Your task to perform on an android device: What's the weather going to be this weekend? Image 0: 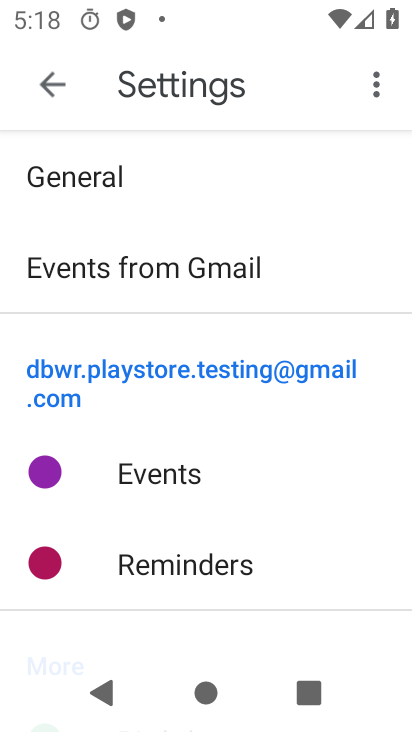
Step 0: press home button
Your task to perform on an android device: What's the weather going to be this weekend? Image 1: 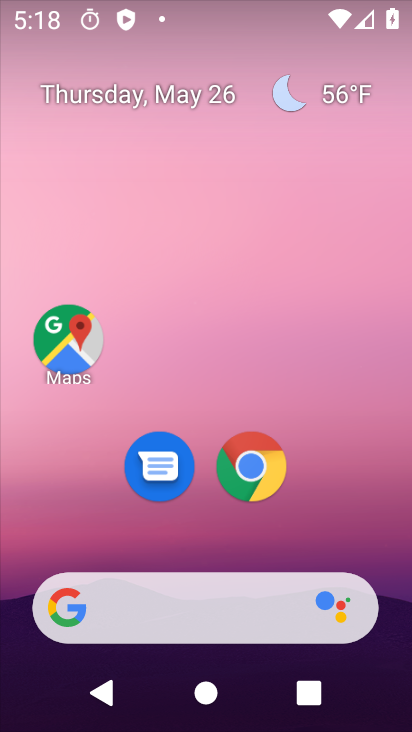
Step 1: click (257, 460)
Your task to perform on an android device: What's the weather going to be this weekend? Image 2: 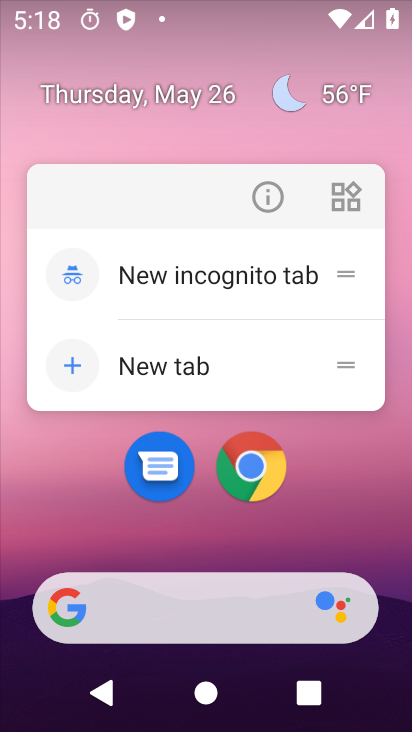
Step 2: click (337, 488)
Your task to perform on an android device: What's the weather going to be this weekend? Image 3: 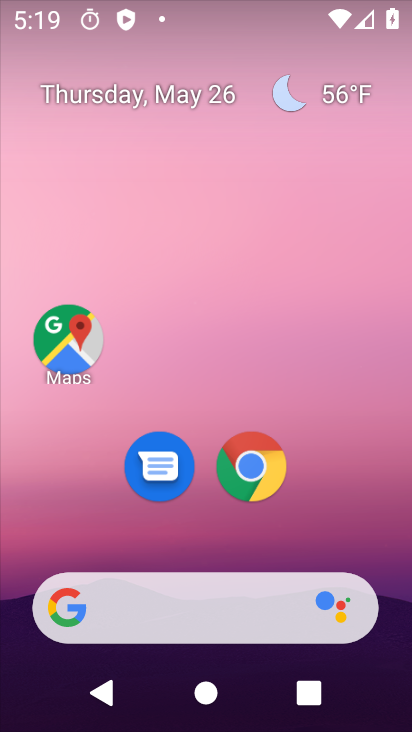
Step 3: drag from (306, 554) to (330, 95)
Your task to perform on an android device: What's the weather going to be this weekend? Image 4: 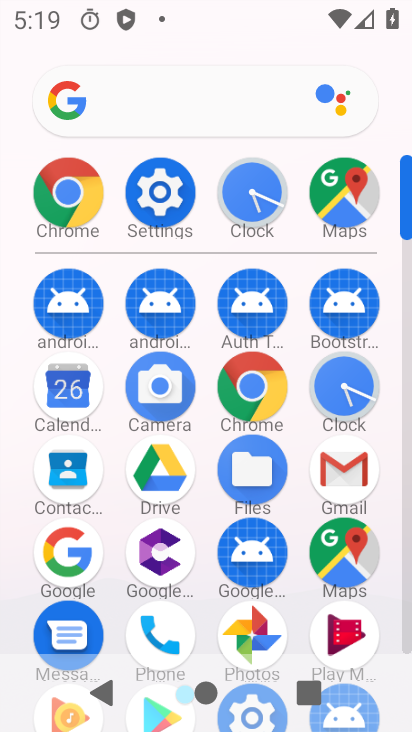
Step 4: click (252, 392)
Your task to perform on an android device: What's the weather going to be this weekend? Image 5: 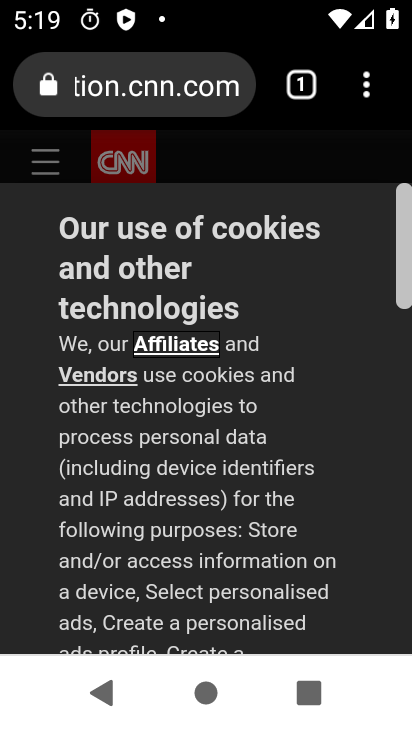
Step 5: click (229, 83)
Your task to perform on an android device: What's the weather going to be this weekend? Image 6: 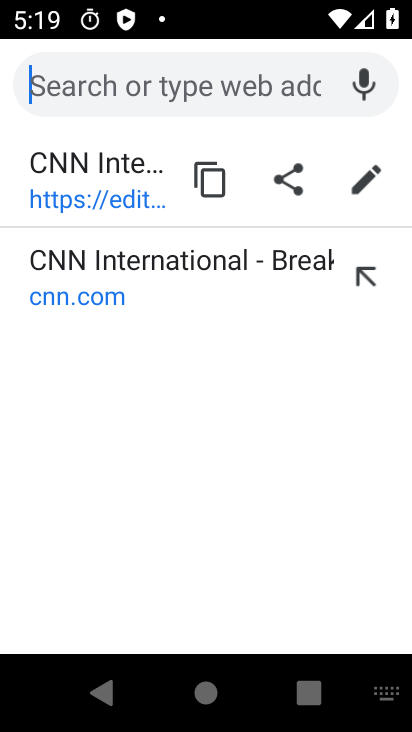
Step 6: type "What's the weather going to be this weekend?"
Your task to perform on an android device: What's the weather going to be this weekend? Image 7: 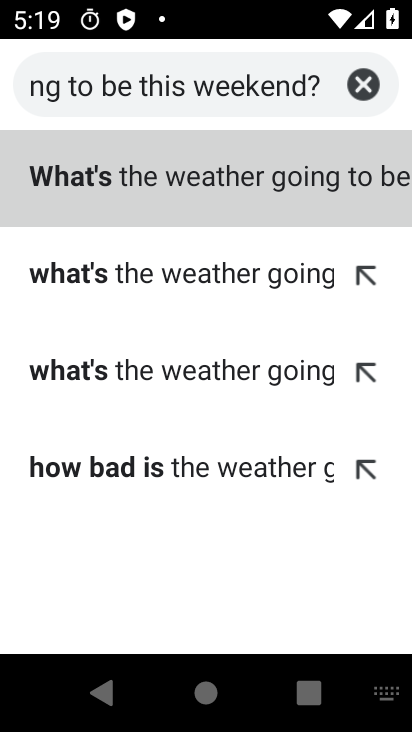
Step 7: click (199, 179)
Your task to perform on an android device: What's the weather going to be this weekend? Image 8: 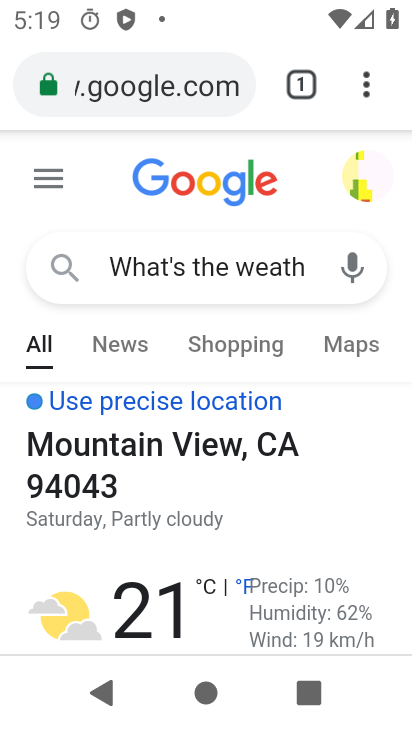
Step 8: task complete